Your task to perform on an android device: Open location settings Image 0: 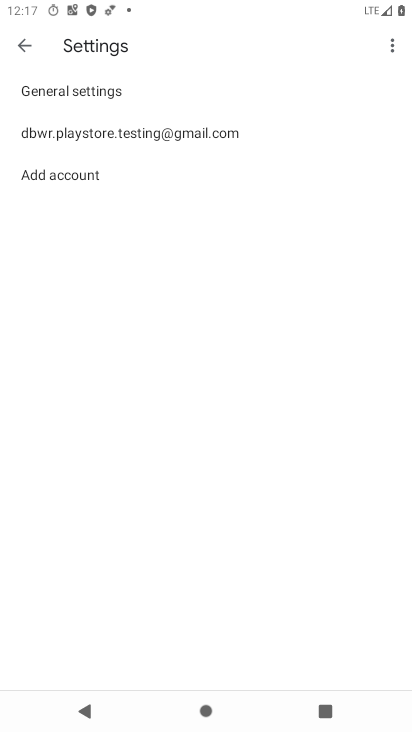
Step 0: press home button
Your task to perform on an android device: Open location settings Image 1: 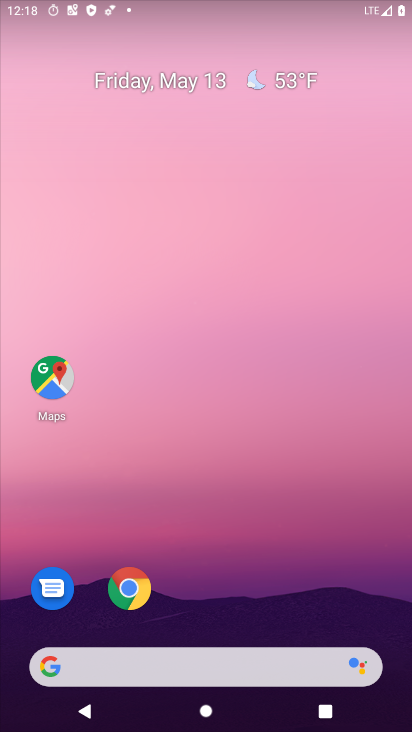
Step 1: drag from (320, 567) to (274, 124)
Your task to perform on an android device: Open location settings Image 2: 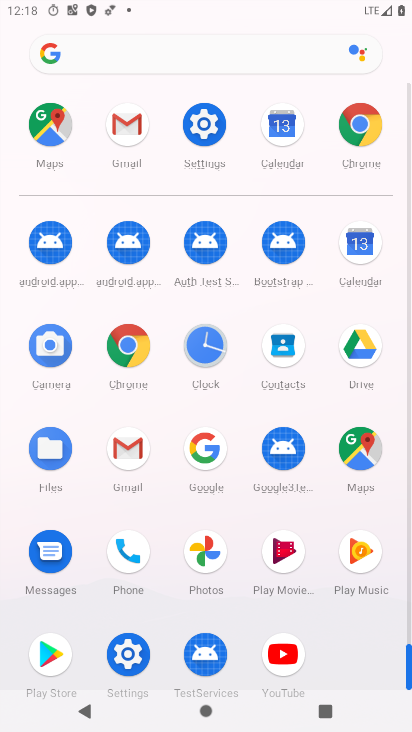
Step 2: click (203, 107)
Your task to perform on an android device: Open location settings Image 3: 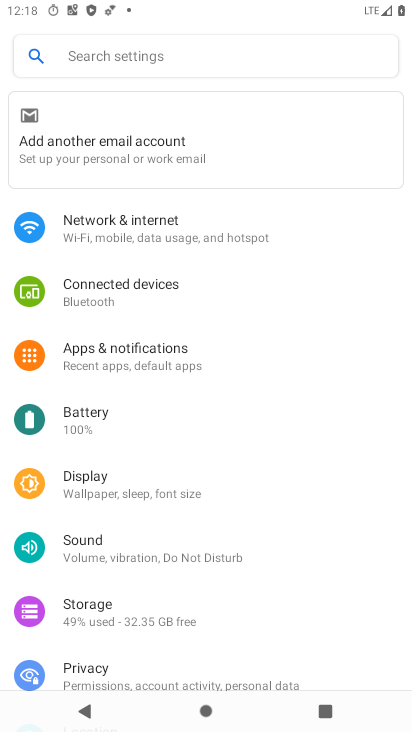
Step 3: drag from (180, 573) to (227, 211)
Your task to perform on an android device: Open location settings Image 4: 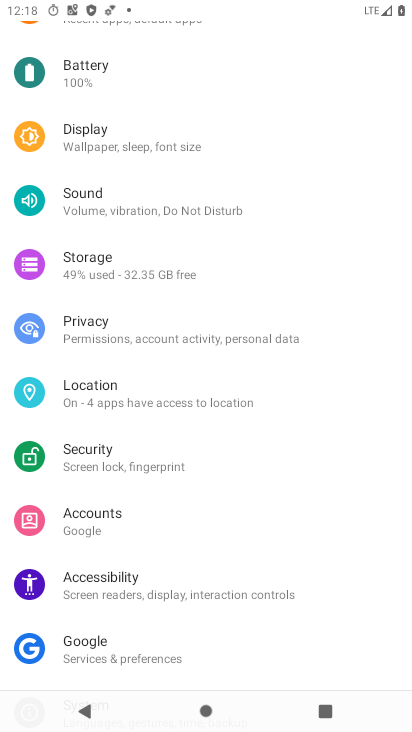
Step 4: drag from (136, 529) to (201, 308)
Your task to perform on an android device: Open location settings Image 5: 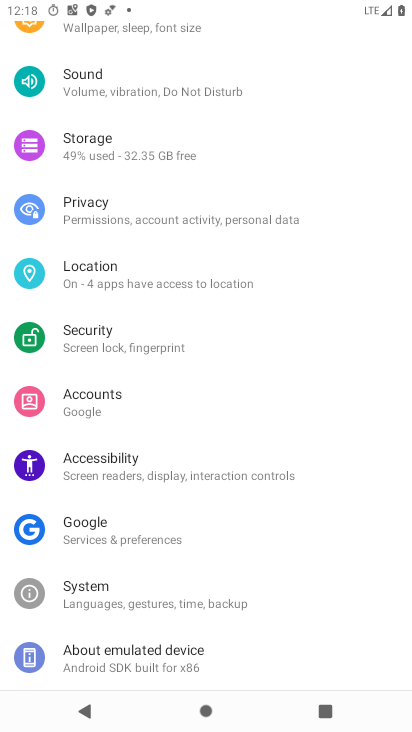
Step 5: click (137, 292)
Your task to perform on an android device: Open location settings Image 6: 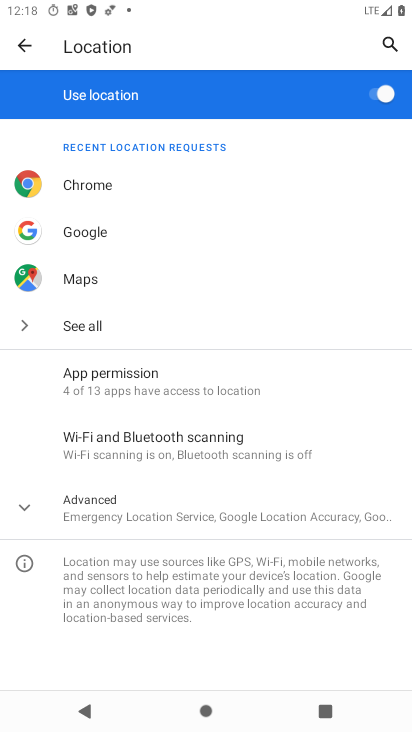
Step 6: click (222, 527)
Your task to perform on an android device: Open location settings Image 7: 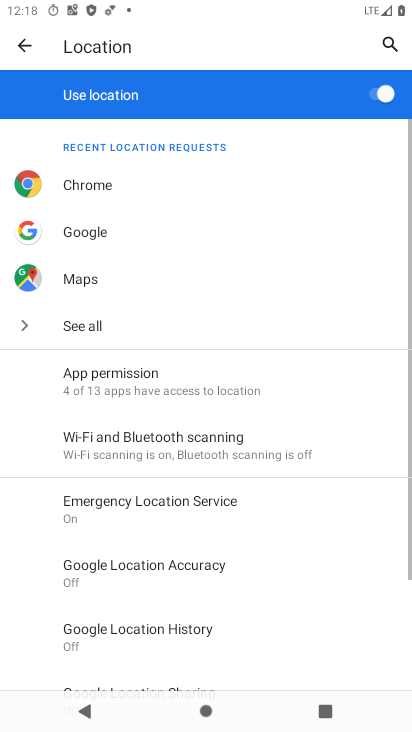
Step 7: task complete